Your task to perform on an android device: Open Google Chrome and click the shortcut for Amazon.com Image 0: 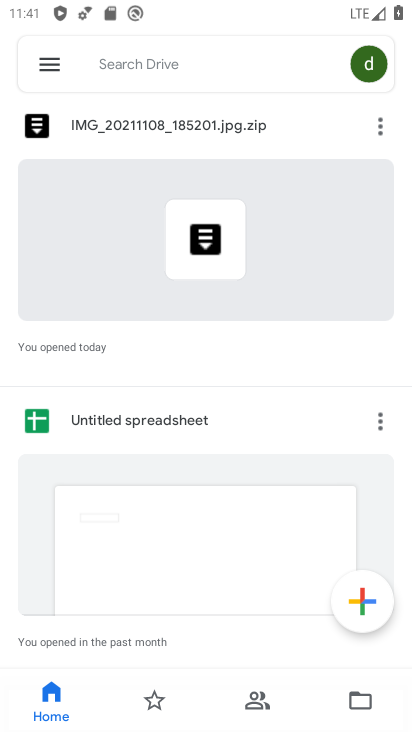
Step 0: press home button
Your task to perform on an android device: Open Google Chrome and click the shortcut for Amazon.com Image 1: 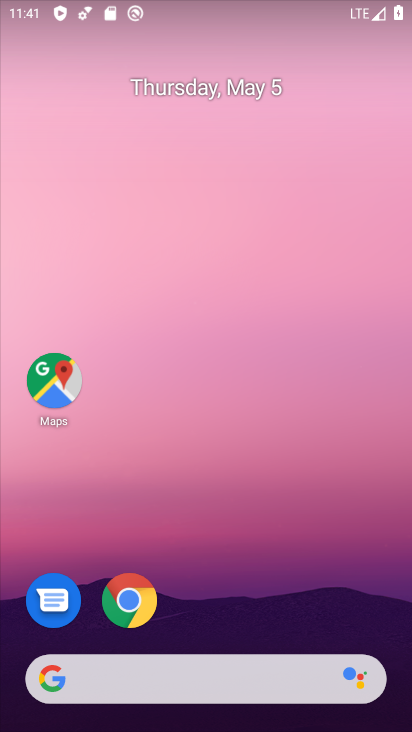
Step 1: drag from (360, 617) to (317, 82)
Your task to perform on an android device: Open Google Chrome and click the shortcut for Amazon.com Image 2: 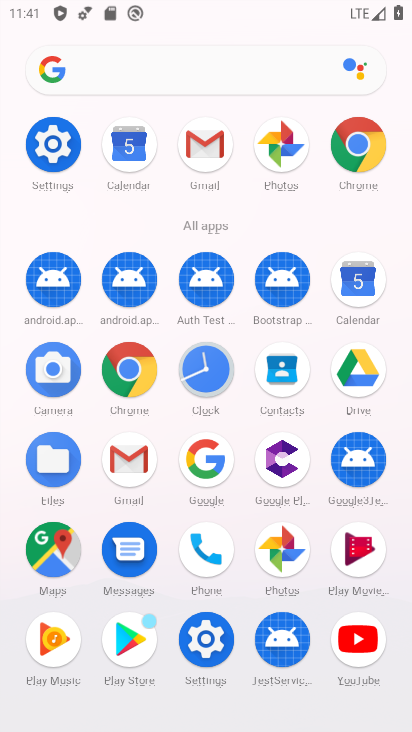
Step 2: click (361, 159)
Your task to perform on an android device: Open Google Chrome and click the shortcut for Amazon.com Image 3: 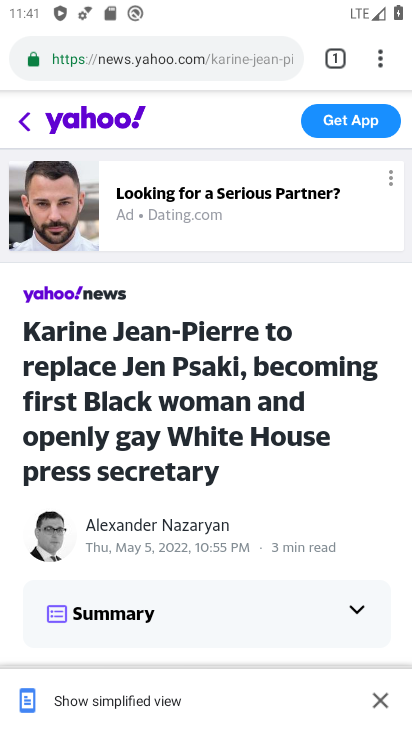
Step 3: press back button
Your task to perform on an android device: Open Google Chrome and click the shortcut for Amazon.com Image 4: 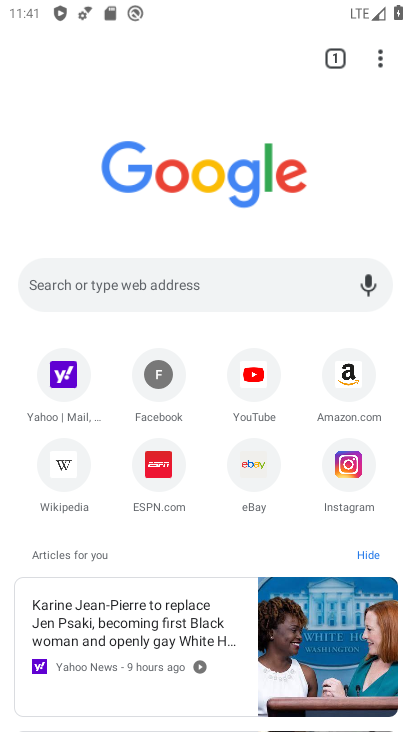
Step 4: click (349, 376)
Your task to perform on an android device: Open Google Chrome and click the shortcut for Amazon.com Image 5: 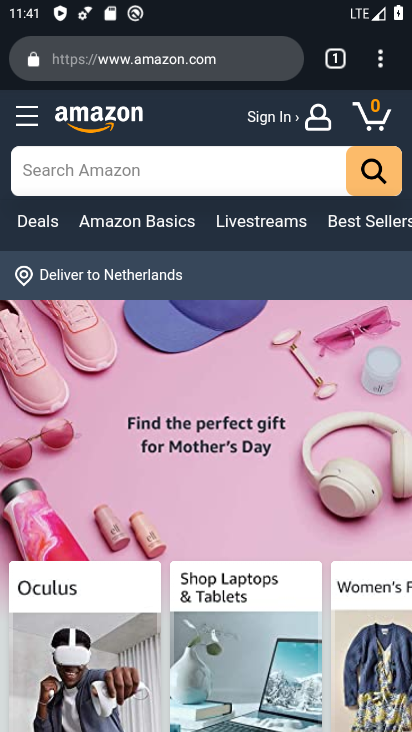
Step 5: task complete